Your task to perform on an android device: change the clock display to digital Image 0: 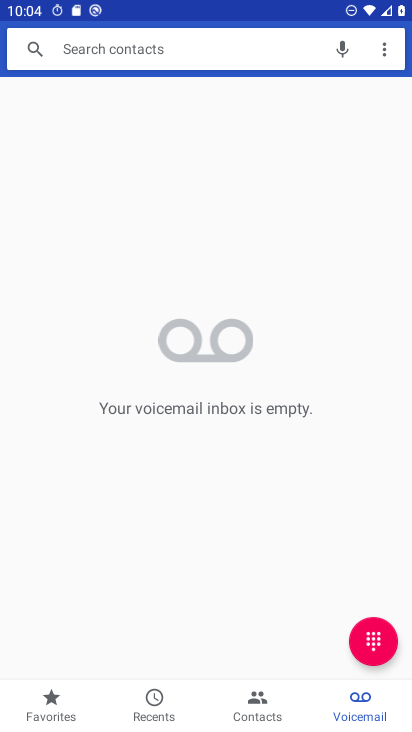
Step 0: press home button
Your task to perform on an android device: change the clock display to digital Image 1: 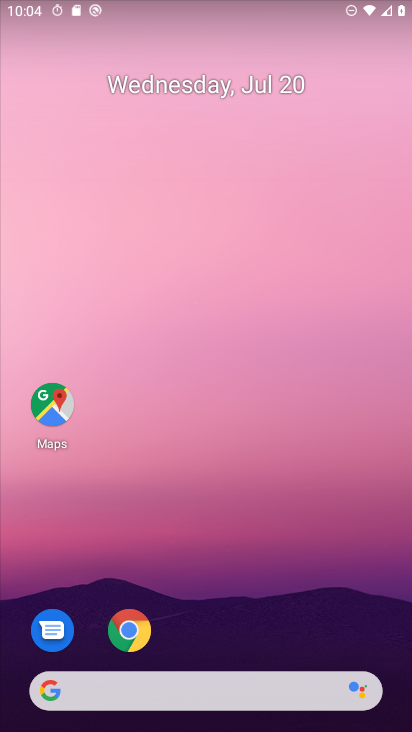
Step 1: drag from (234, 644) to (224, 136)
Your task to perform on an android device: change the clock display to digital Image 2: 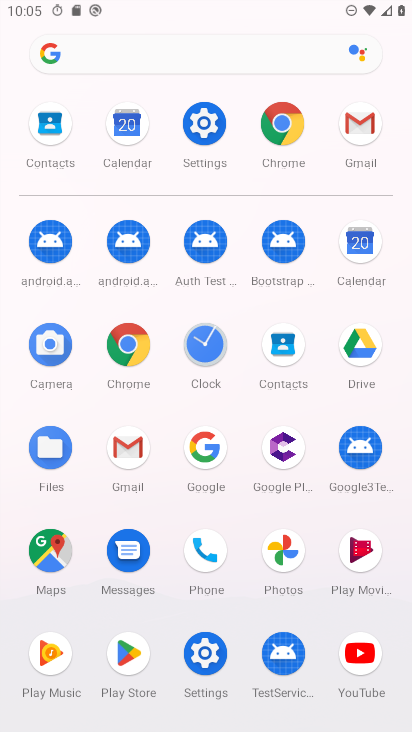
Step 2: click (192, 337)
Your task to perform on an android device: change the clock display to digital Image 3: 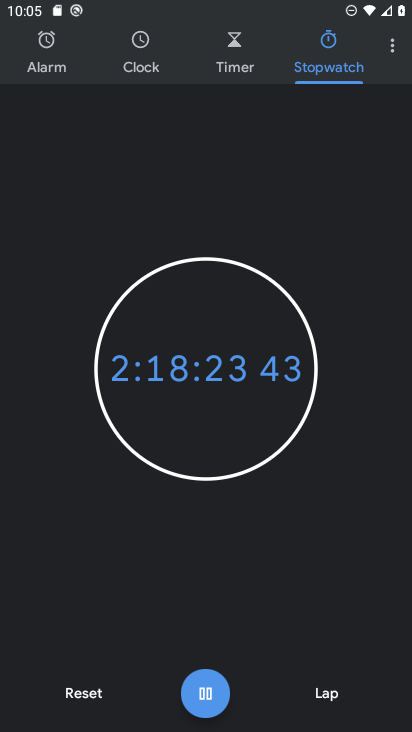
Step 3: click (392, 41)
Your task to perform on an android device: change the clock display to digital Image 4: 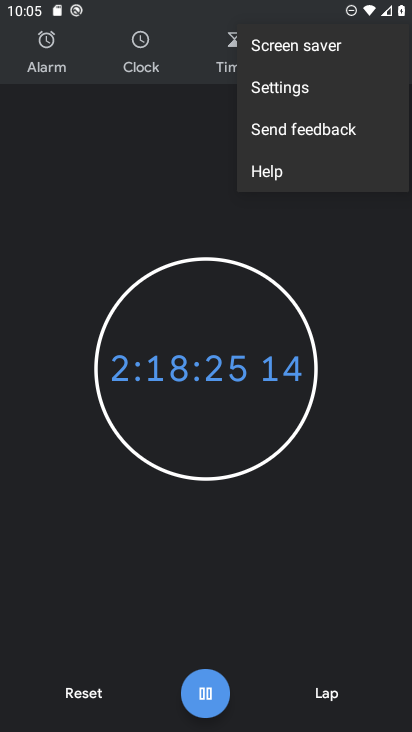
Step 4: click (308, 90)
Your task to perform on an android device: change the clock display to digital Image 5: 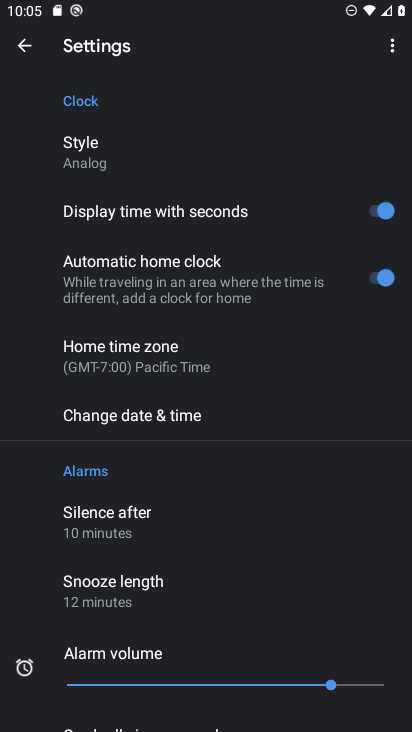
Step 5: click (111, 148)
Your task to perform on an android device: change the clock display to digital Image 6: 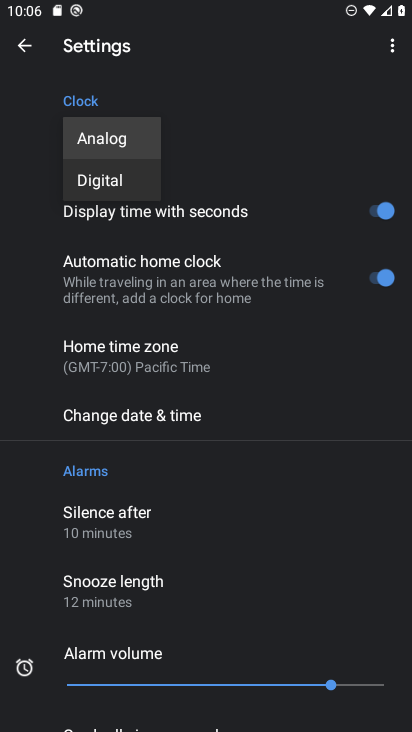
Step 6: click (94, 177)
Your task to perform on an android device: change the clock display to digital Image 7: 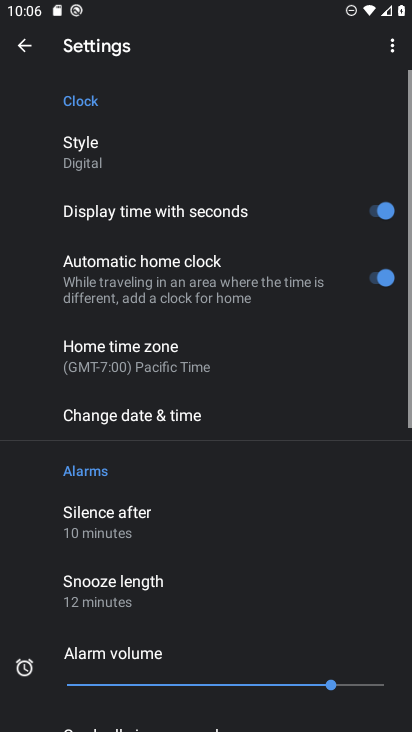
Step 7: task complete